Your task to perform on an android device: turn off notifications settings in the gmail app Image 0: 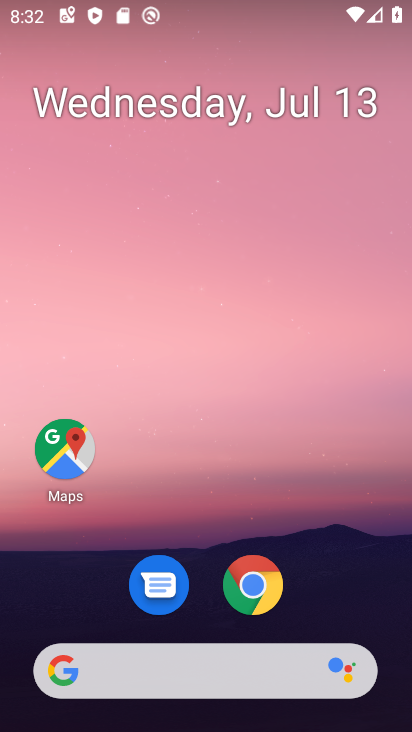
Step 0: drag from (219, 502) to (234, 9)
Your task to perform on an android device: turn off notifications settings in the gmail app Image 1: 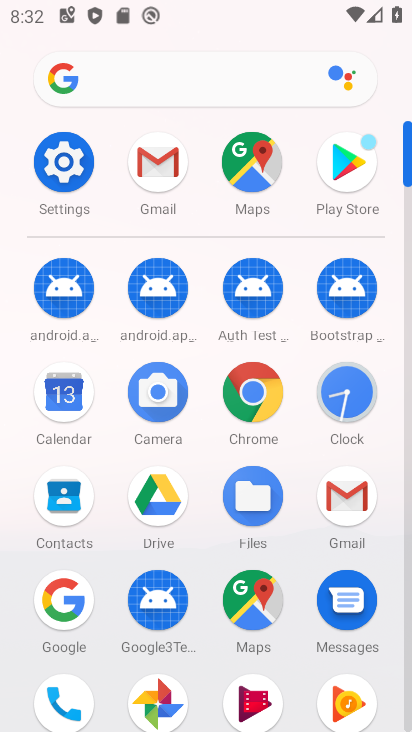
Step 1: click (164, 167)
Your task to perform on an android device: turn off notifications settings in the gmail app Image 2: 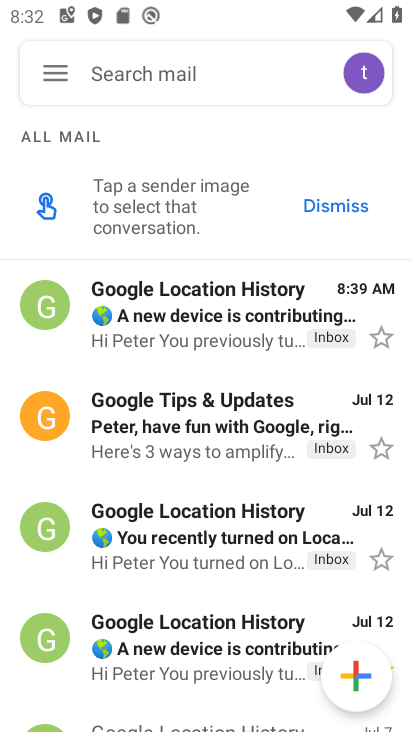
Step 2: click (54, 68)
Your task to perform on an android device: turn off notifications settings in the gmail app Image 3: 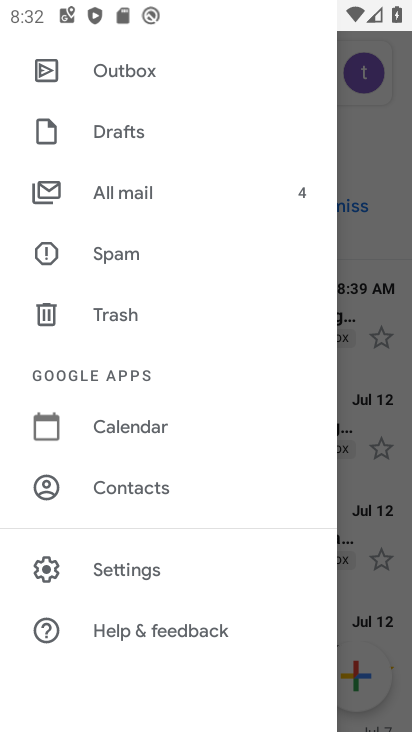
Step 3: click (137, 573)
Your task to perform on an android device: turn off notifications settings in the gmail app Image 4: 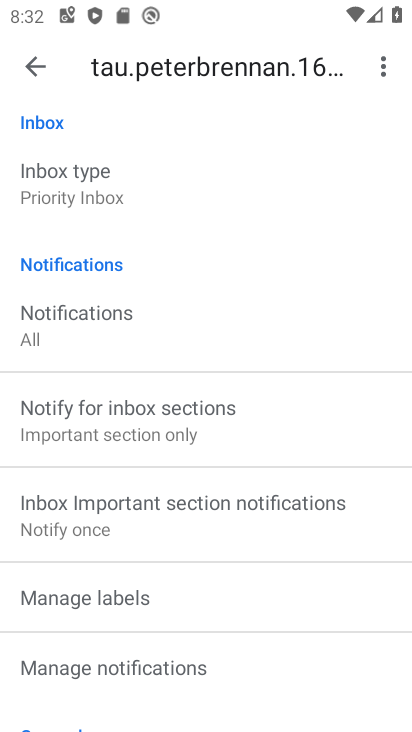
Step 4: click (203, 667)
Your task to perform on an android device: turn off notifications settings in the gmail app Image 5: 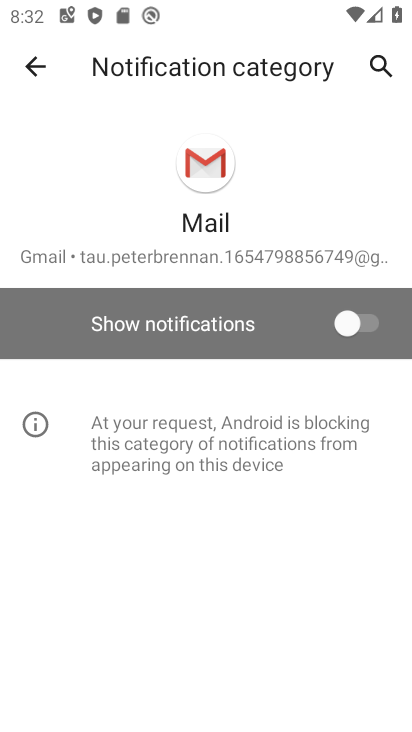
Step 5: task complete